Your task to perform on an android device: turn off wifi Image 0: 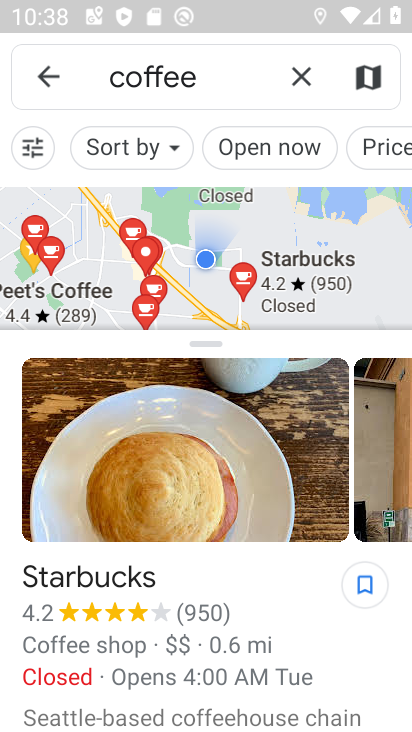
Step 0: press home button
Your task to perform on an android device: turn off wifi Image 1: 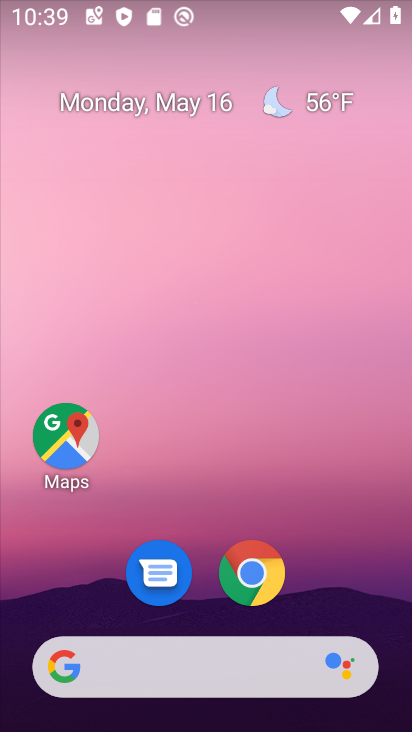
Step 1: drag from (196, 729) to (194, 91)
Your task to perform on an android device: turn off wifi Image 2: 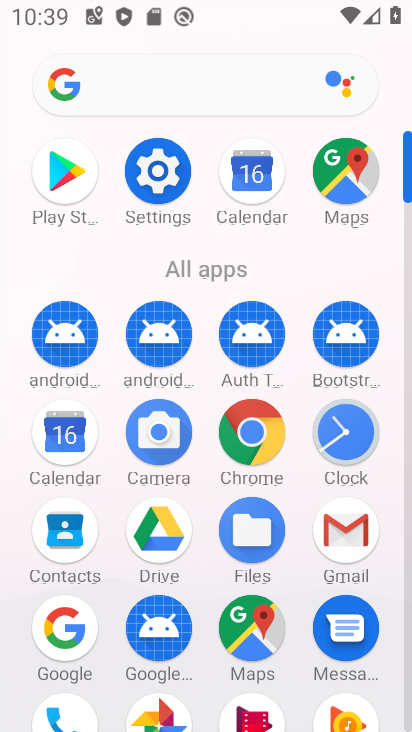
Step 2: click (141, 168)
Your task to perform on an android device: turn off wifi Image 3: 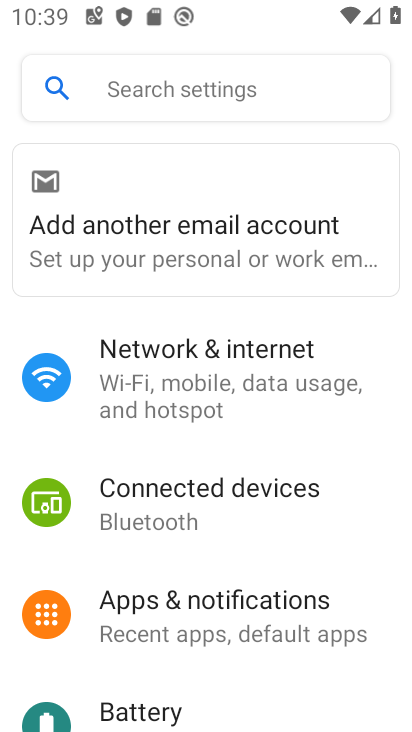
Step 3: click (272, 380)
Your task to perform on an android device: turn off wifi Image 4: 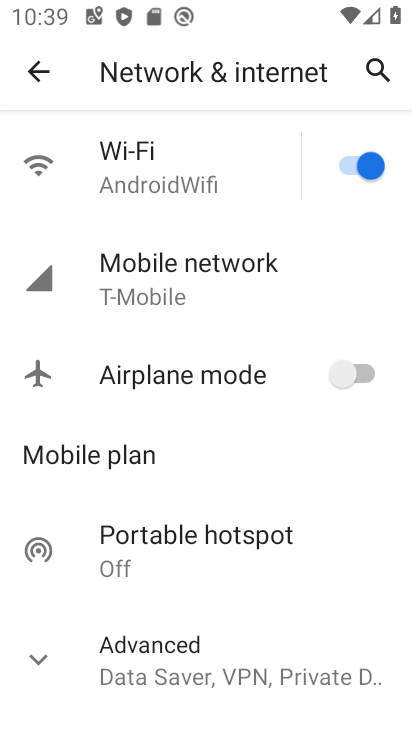
Step 4: click (369, 172)
Your task to perform on an android device: turn off wifi Image 5: 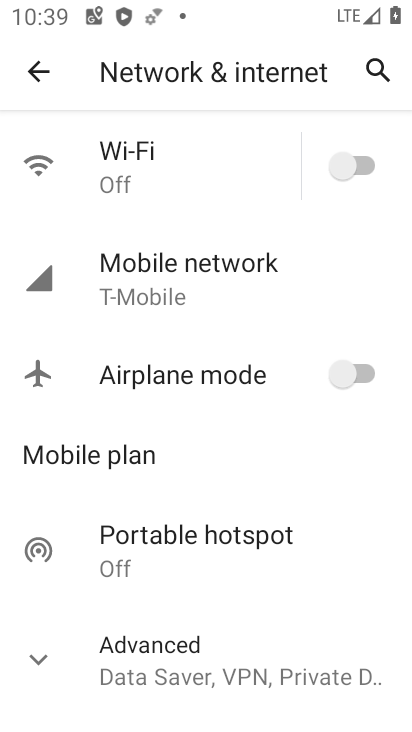
Step 5: task complete